Your task to perform on an android device: View the shopping cart on walmart. Add razer blade to the cart on walmart, then select checkout. Image 0: 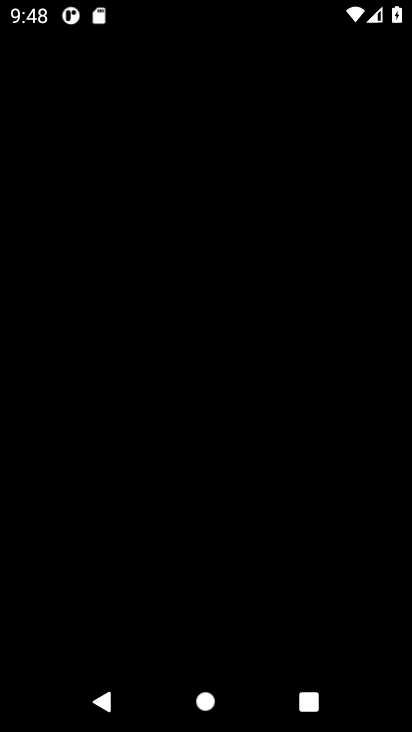
Step 0: press home button
Your task to perform on an android device: View the shopping cart on walmart. Add razer blade to the cart on walmart, then select checkout. Image 1: 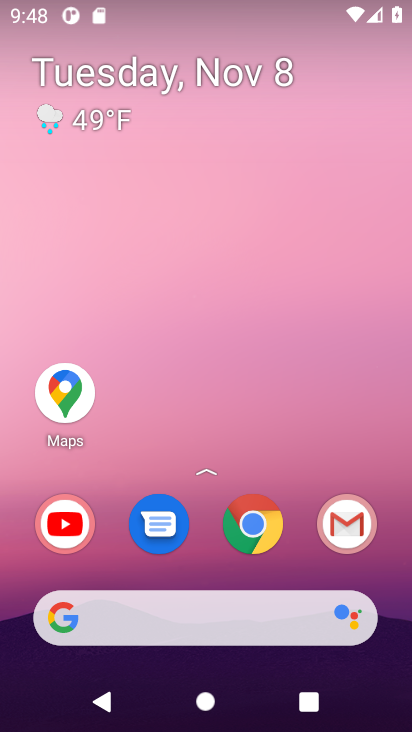
Step 1: click (270, 533)
Your task to perform on an android device: View the shopping cart on walmart. Add razer blade to the cart on walmart, then select checkout. Image 2: 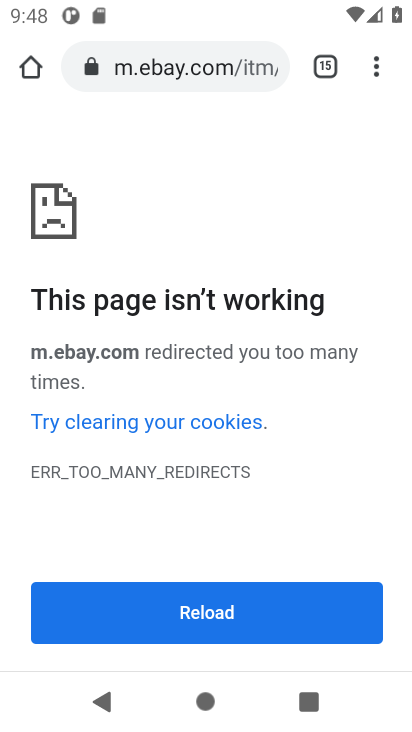
Step 2: click (162, 62)
Your task to perform on an android device: View the shopping cart on walmart. Add razer blade to the cart on walmart, then select checkout. Image 3: 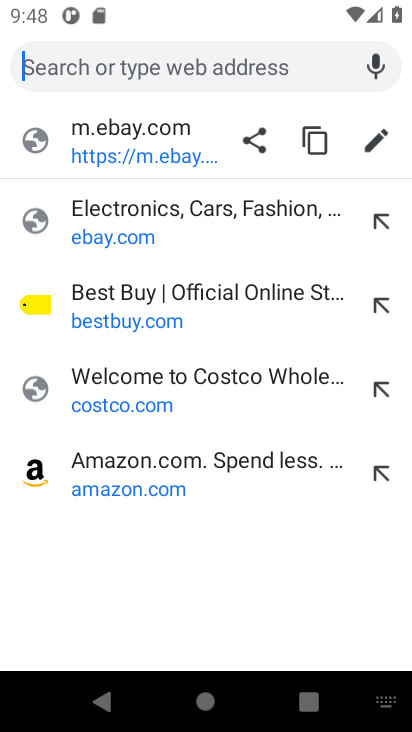
Step 3: type "walmart.com"
Your task to perform on an android device: View the shopping cart on walmart. Add razer blade to the cart on walmart, then select checkout. Image 4: 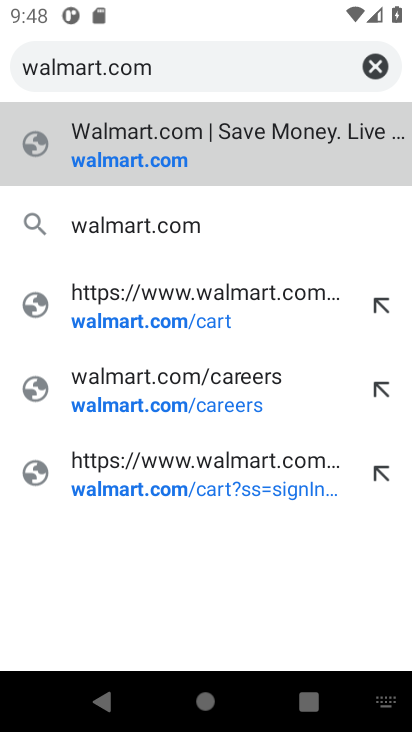
Step 4: click (160, 165)
Your task to perform on an android device: View the shopping cart on walmart. Add razer blade to the cart on walmart, then select checkout. Image 5: 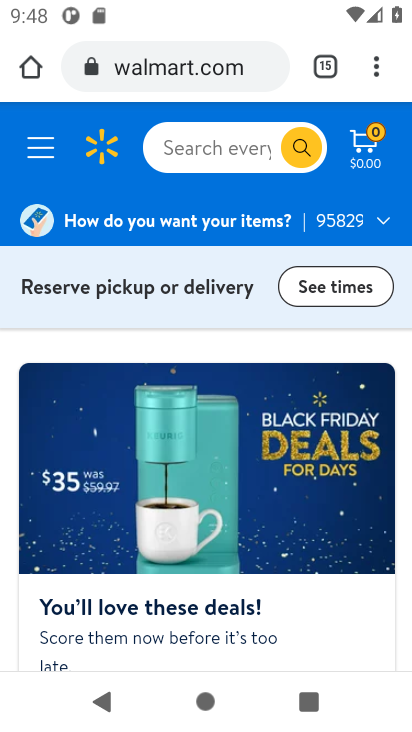
Step 5: click (368, 145)
Your task to perform on an android device: View the shopping cart on walmart. Add razer blade to the cart on walmart, then select checkout. Image 6: 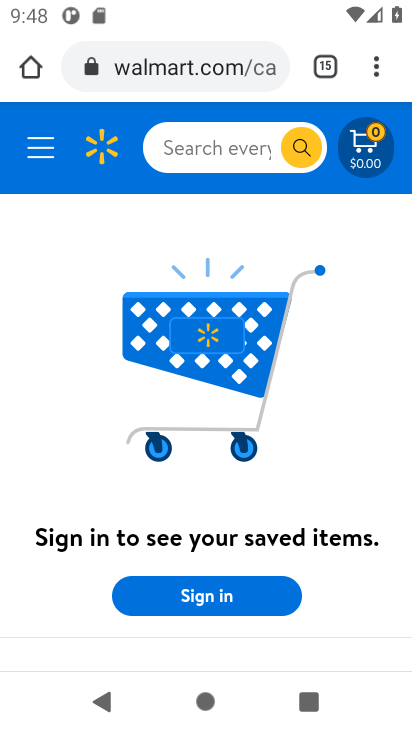
Step 6: click (218, 145)
Your task to perform on an android device: View the shopping cart on walmart. Add razer blade to the cart on walmart, then select checkout. Image 7: 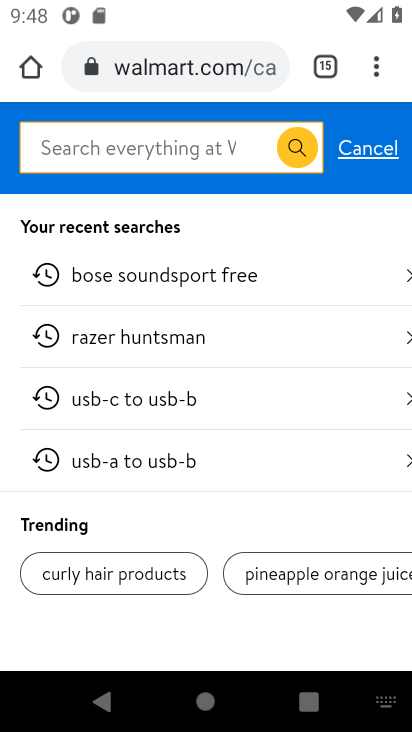
Step 7: type "razer blade"
Your task to perform on an android device: View the shopping cart on walmart. Add razer blade to the cart on walmart, then select checkout. Image 8: 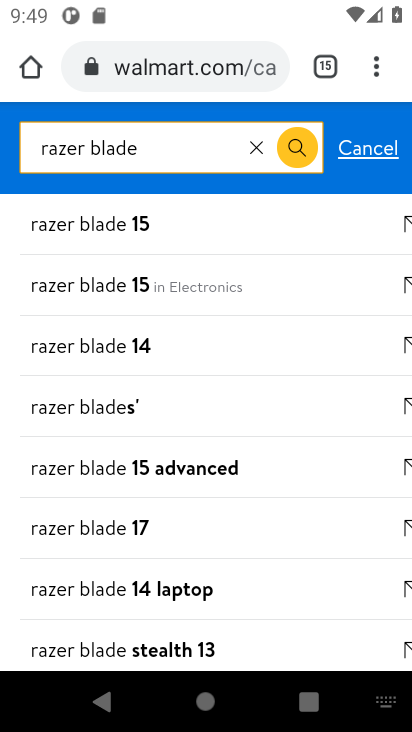
Step 8: click (298, 152)
Your task to perform on an android device: View the shopping cart on walmart. Add razer blade to the cart on walmart, then select checkout. Image 9: 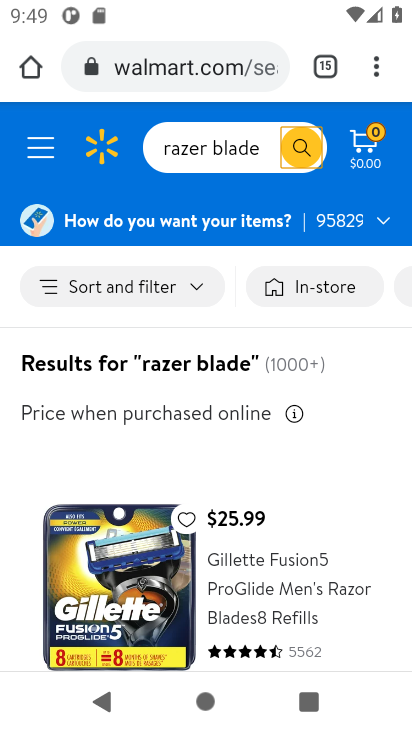
Step 9: drag from (233, 553) to (239, 414)
Your task to perform on an android device: View the shopping cart on walmart. Add razer blade to the cart on walmart, then select checkout. Image 10: 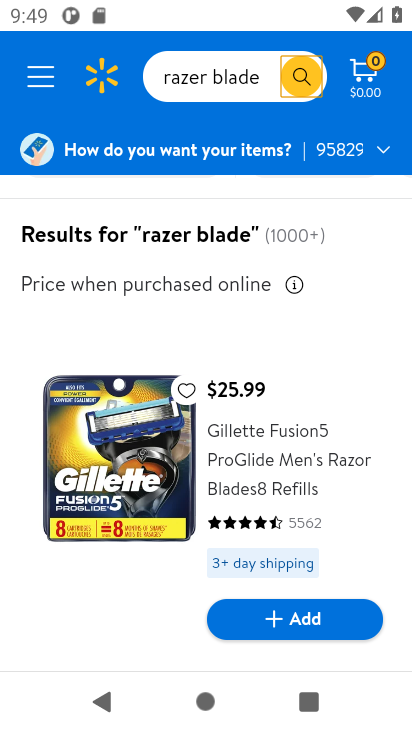
Step 10: drag from (186, 520) to (151, 168)
Your task to perform on an android device: View the shopping cart on walmart. Add razer blade to the cart on walmart, then select checkout. Image 11: 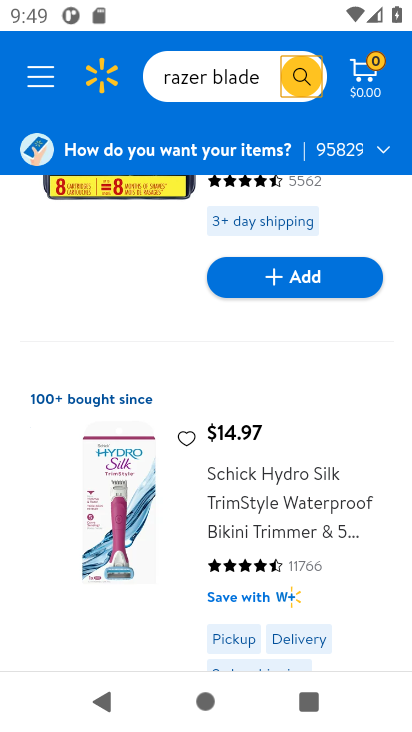
Step 11: drag from (158, 550) to (153, 203)
Your task to perform on an android device: View the shopping cart on walmart. Add razer blade to the cart on walmart, then select checkout. Image 12: 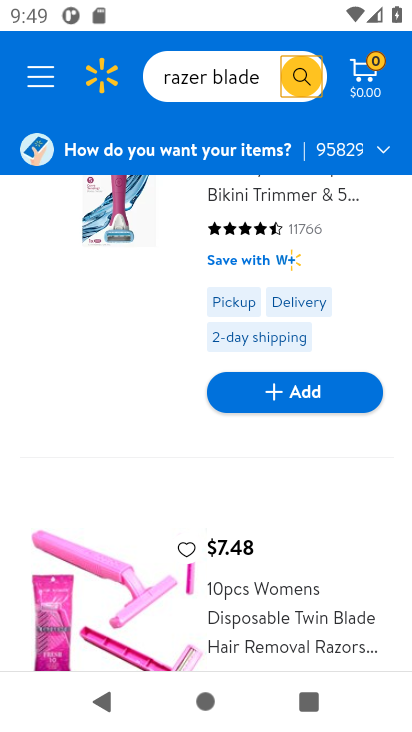
Step 12: drag from (170, 609) to (158, 289)
Your task to perform on an android device: View the shopping cart on walmart. Add razer blade to the cart on walmart, then select checkout. Image 13: 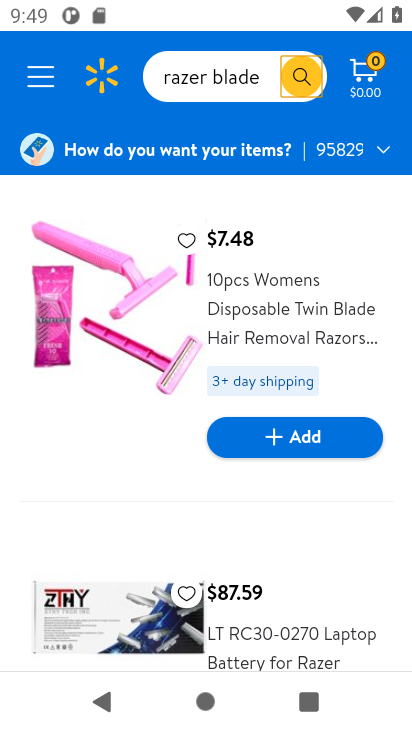
Step 13: drag from (185, 586) to (182, 318)
Your task to perform on an android device: View the shopping cart on walmart. Add razer blade to the cart on walmart, then select checkout. Image 14: 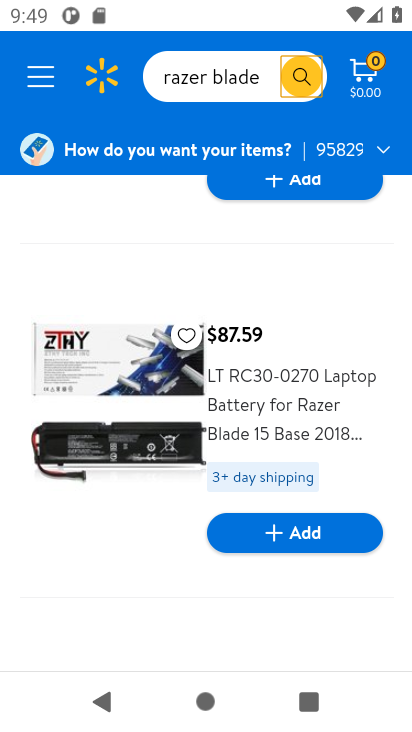
Step 14: click (292, 543)
Your task to perform on an android device: View the shopping cart on walmart. Add razer blade to the cart on walmart, then select checkout. Image 15: 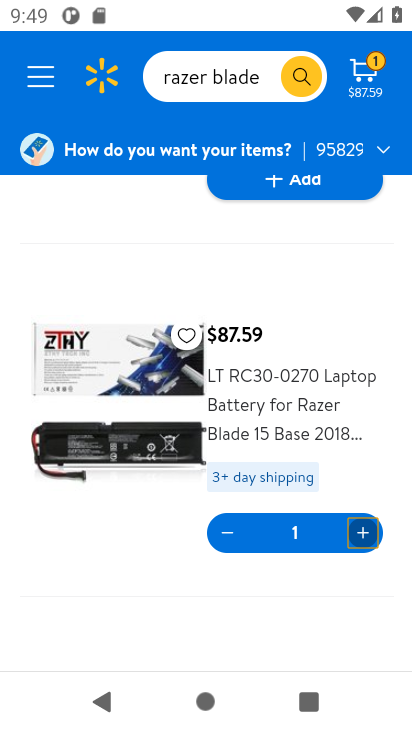
Step 15: click (359, 77)
Your task to perform on an android device: View the shopping cart on walmart. Add razer blade to the cart on walmart, then select checkout. Image 16: 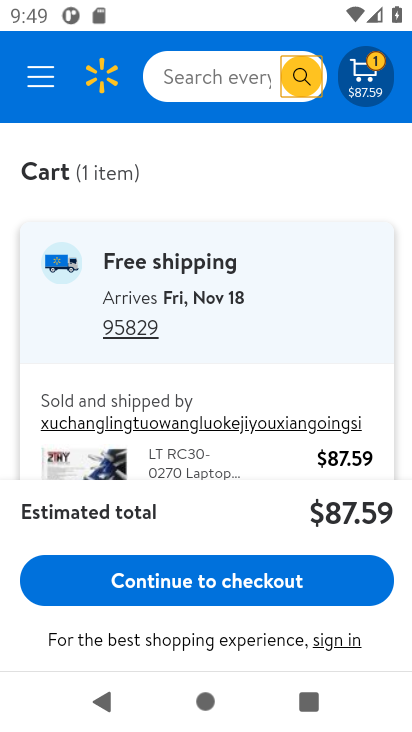
Step 16: click (204, 584)
Your task to perform on an android device: View the shopping cart on walmart. Add razer blade to the cart on walmart, then select checkout. Image 17: 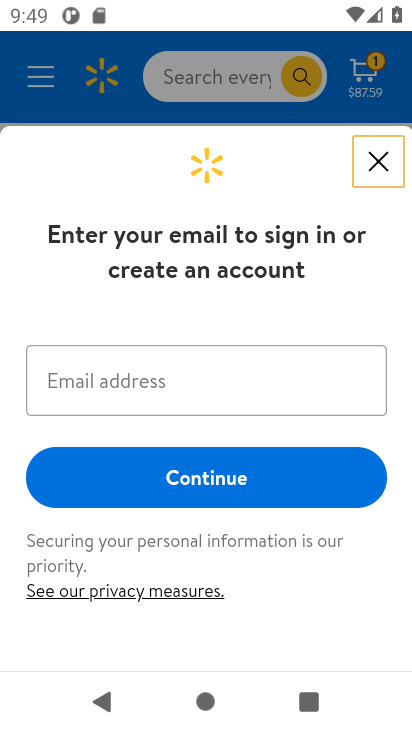
Step 17: task complete